Your task to perform on an android device: Show me popular games on the Play Store Image 0: 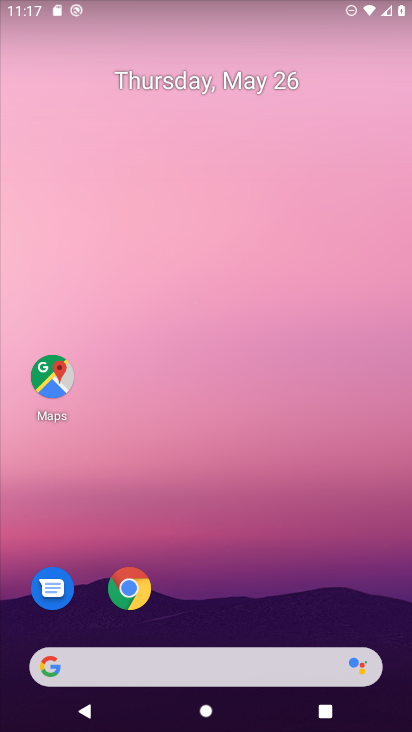
Step 0: drag from (394, 624) to (341, 38)
Your task to perform on an android device: Show me popular games on the Play Store Image 1: 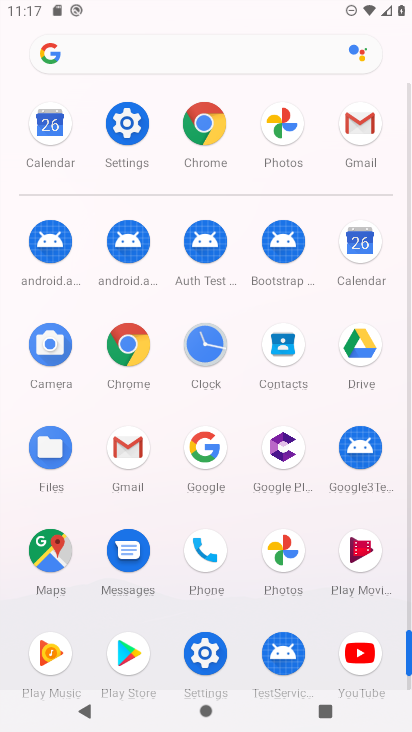
Step 1: click (407, 683)
Your task to perform on an android device: Show me popular games on the Play Store Image 2: 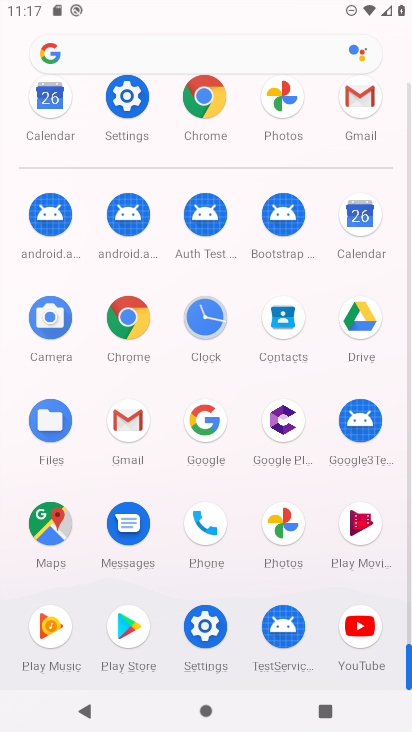
Step 2: click (131, 624)
Your task to perform on an android device: Show me popular games on the Play Store Image 3: 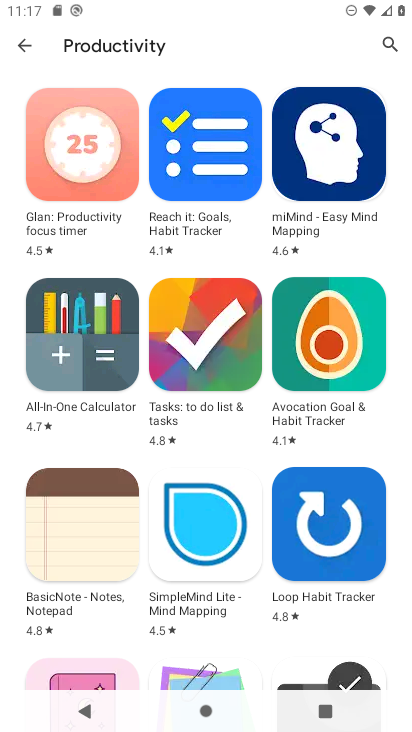
Step 3: press back button
Your task to perform on an android device: Show me popular games on the Play Store Image 4: 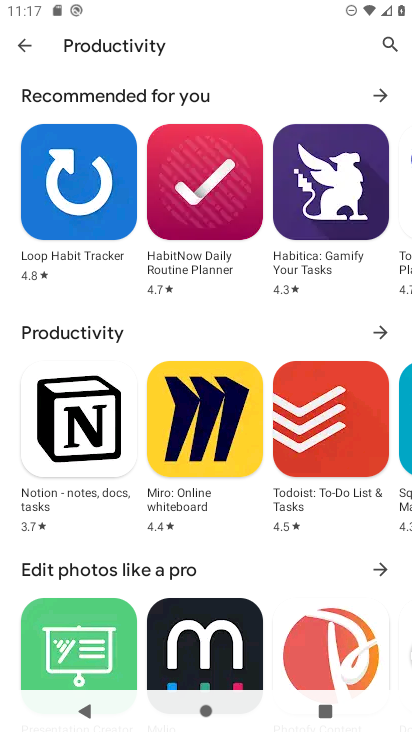
Step 4: press back button
Your task to perform on an android device: Show me popular games on the Play Store Image 5: 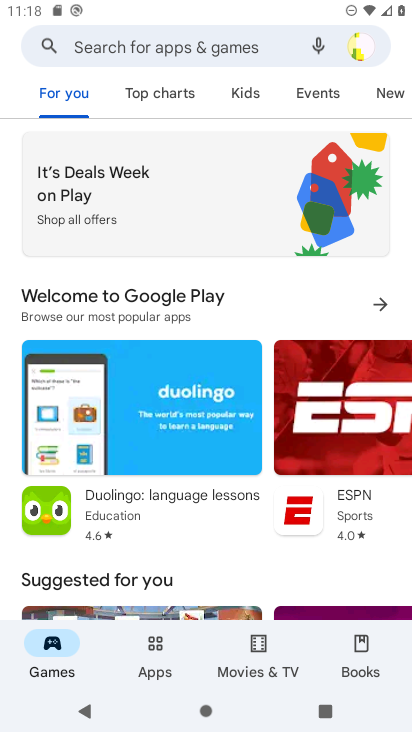
Step 5: click (155, 653)
Your task to perform on an android device: Show me popular games on the Play Store Image 6: 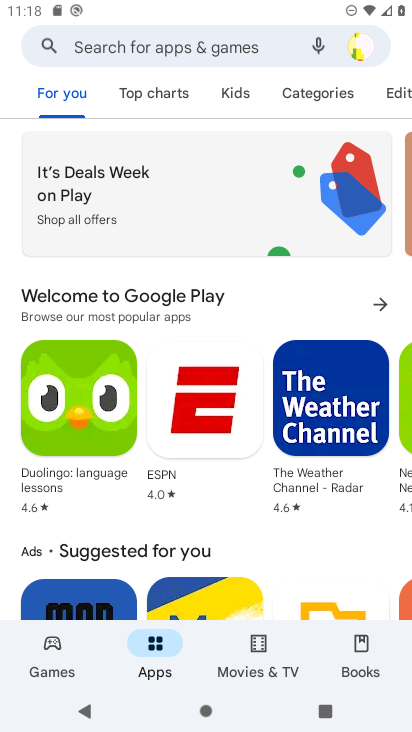
Step 6: click (45, 641)
Your task to perform on an android device: Show me popular games on the Play Store Image 7: 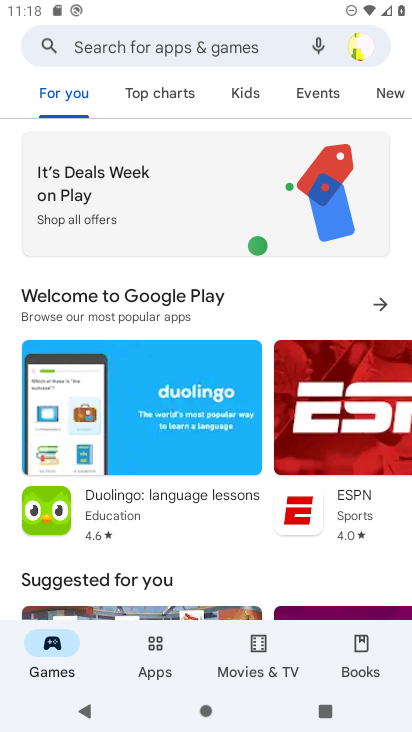
Step 7: drag from (277, 577) to (253, 198)
Your task to perform on an android device: Show me popular games on the Play Store Image 8: 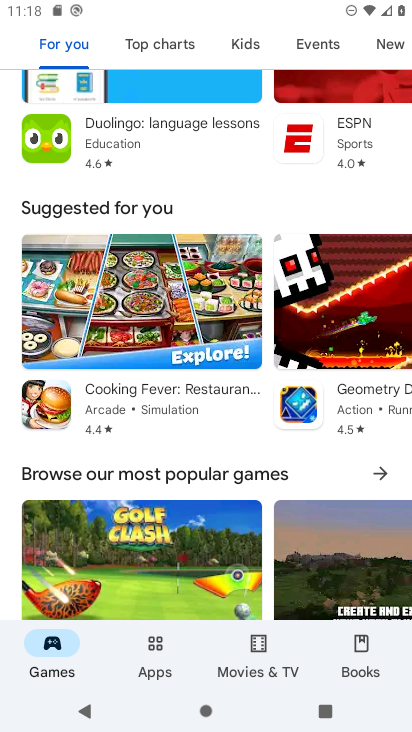
Step 8: click (378, 467)
Your task to perform on an android device: Show me popular games on the Play Store Image 9: 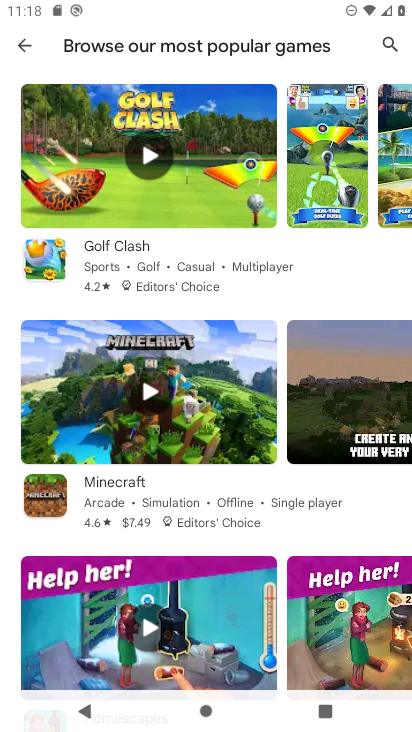
Step 9: task complete